Your task to perform on an android device: manage bookmarks in the chrome app Image 0: 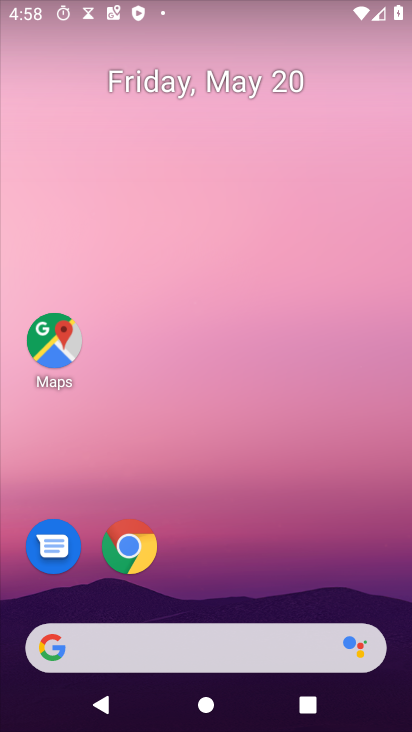
Step 0: click (129, 549)
Your task to perform on an android device: manage bookmarks in the chrome app Image 1: 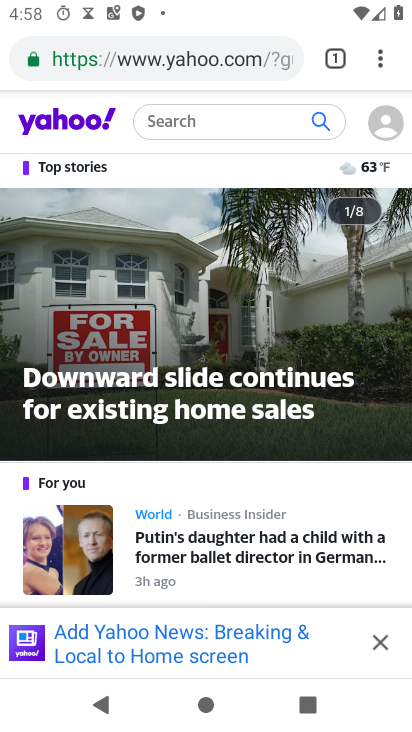
Step 1: click (382, 58)
Your task to perform on an android device: manage bookmarks in the chrome app Image 2: 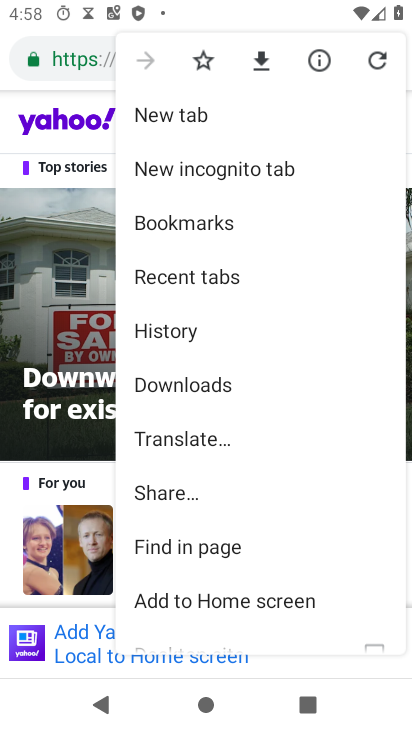
Step 2: click (198, 229)
Your task to perform on an android device: manage bookmarks in the chrome app Image 3: 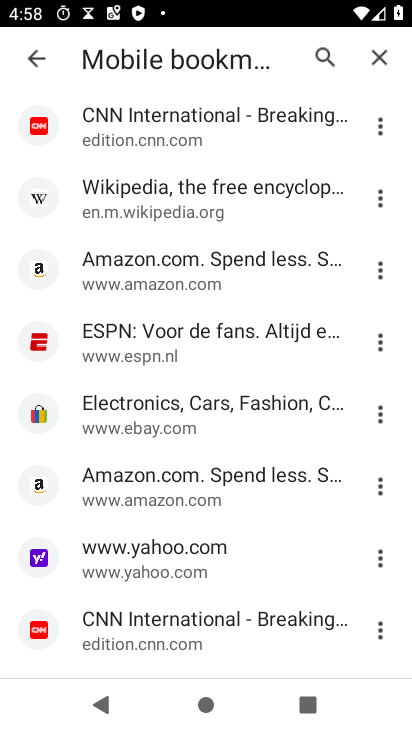
Step 3: click (370, 408)
Your task to perform on an android device: manage bookmarks in the chrome app Image 4: 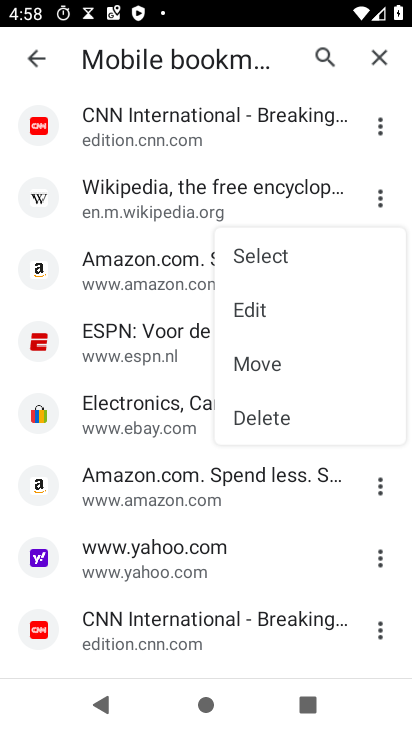
Step 4: click (275, 426)
Your task to perform on an android device: manage bookmarks in the chrome app Image 5: 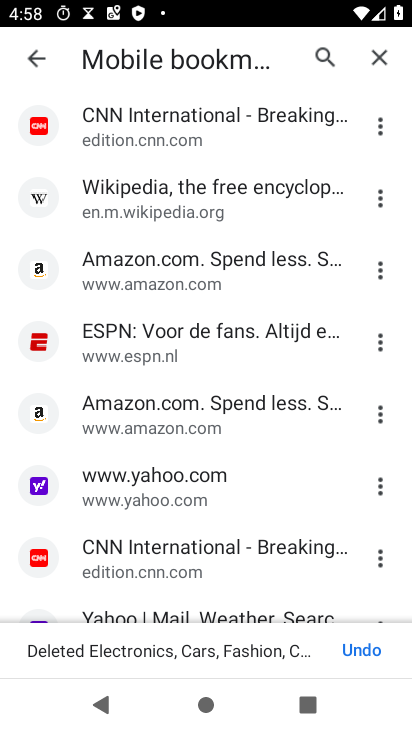
Step 5: task complete